Your task to perform on an android device: Open the Play Movies app and select the watchlist tab. Image 0: 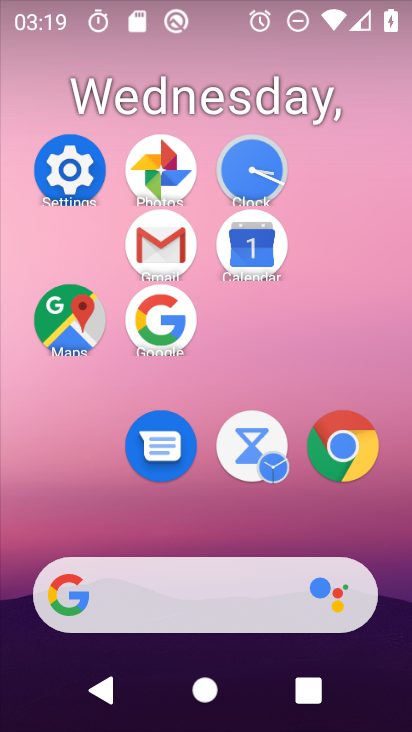
Step 0: drag from (321, 500) to (330, 102)
Your task to perform on an android device: Open the Play Movies app and select the watchlist tab. Image 1: 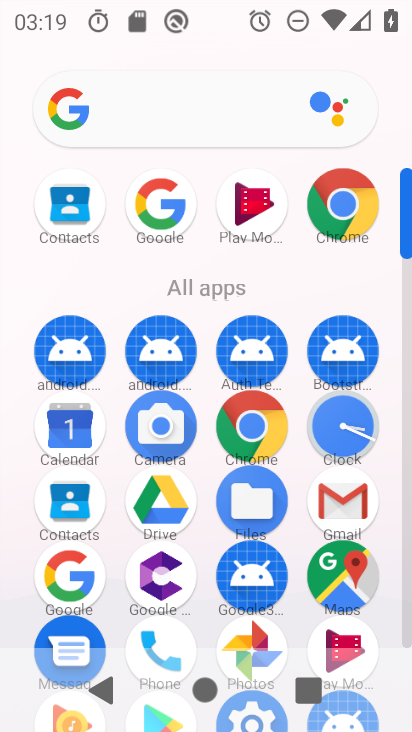
Step 1: drag from (318, 607) to (375, 243)
Your task to perform on an android device: Open the Play Movies app and select the watchlist tab. Image 2: 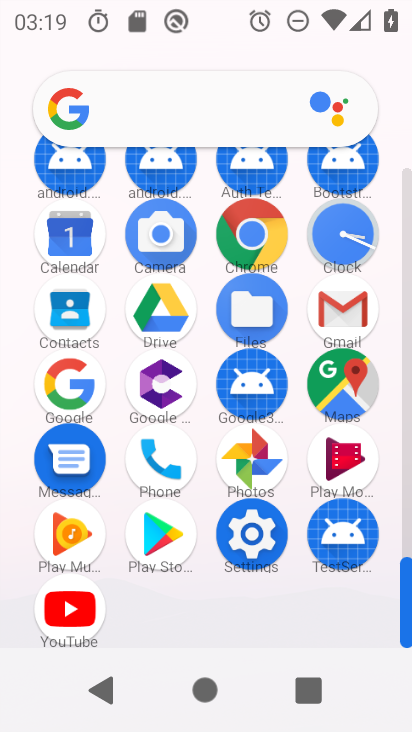
Step 2: click (333, 465)
Your task to perform on an android device: Open the Play Movies app and select the watchlist tab. Image 3: 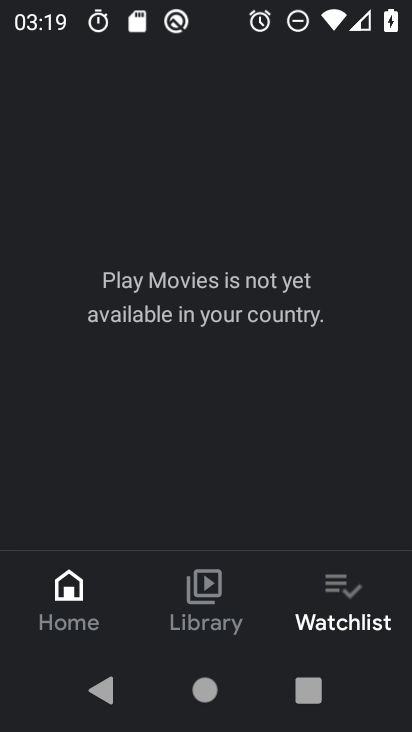
Step 3: click (338, 592)
Your task to perform on an android device: Open the Play Movies app and select the watchlist tab. Image 4: 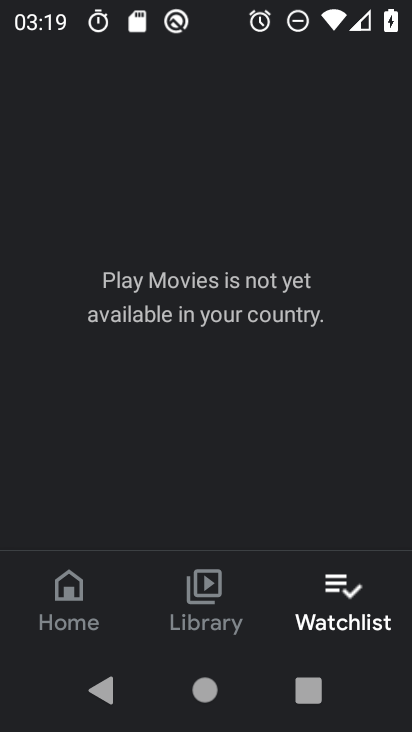
Step 4: task complete